Your task to perform on an android device: Search for sushi restaurants on Maps Image 0: 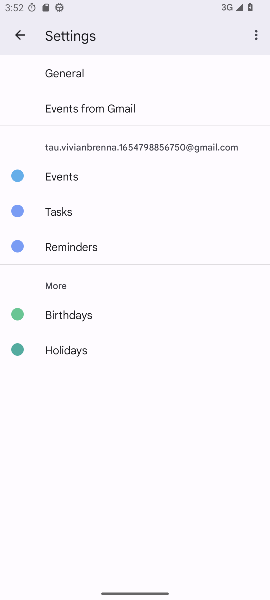
Step 0: press home button
Your task to perform on an android device: Search for sushi restaurants on Maps Image 1: 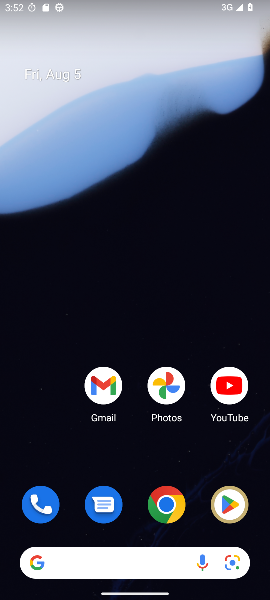
Step 1: click (110, 557)
Your task to perform on an android device: Search for sushi restaurants on Maps Image 2: 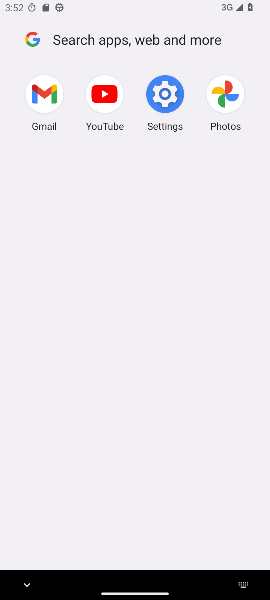
Step 2: type " sushi restaurants"
Your task to perform on an android device: Search for sushi restaurants on Maps Image 3: 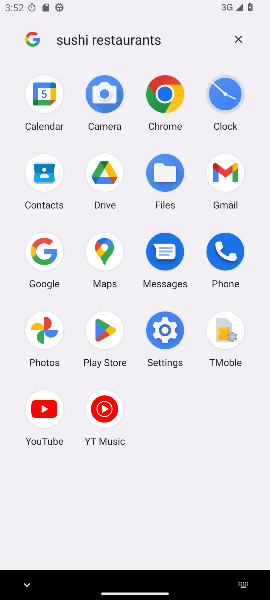
Step 3: type ""
Your task to perform on an android device: Search for sushi restaurants on Maps Image 4: 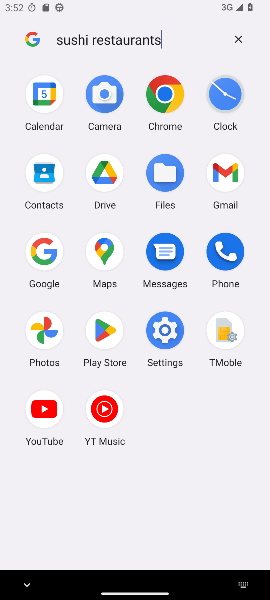
Step 4: type ""
Your task to perform on an android device: Search for sushi restaurants on Maps Image 5: 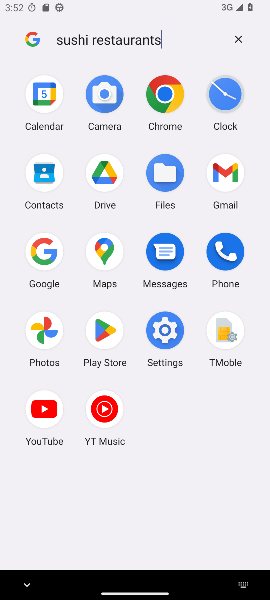
Step 5: type ""
Your task to perform on an android device: Search for sushi restaurants on Maps Image 6: 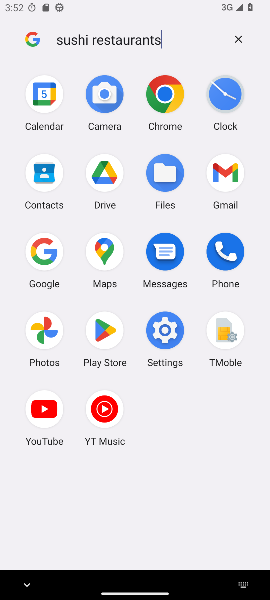
Step 6: type ""
Your task to perform on an android device: Search for sushi restaurants on Maps Image 7: 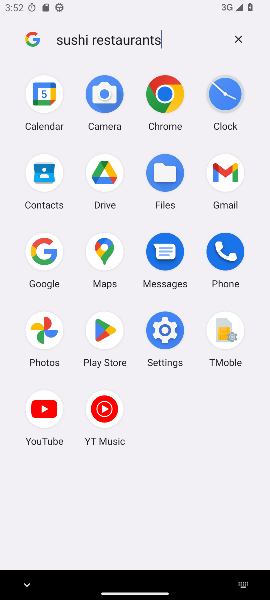
Step 7: task complete